Your task to perform on an android device: Show me the alarms in the clock app Image 0: 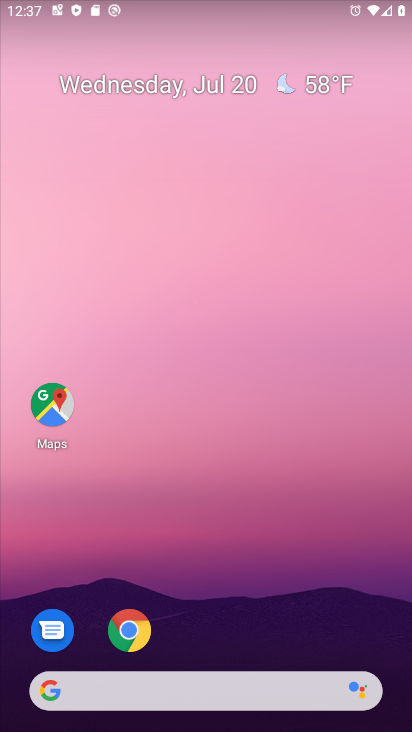
Step 0: press home button
Your task to perform on an android device: Show me the alarms in the clock app Image 1: 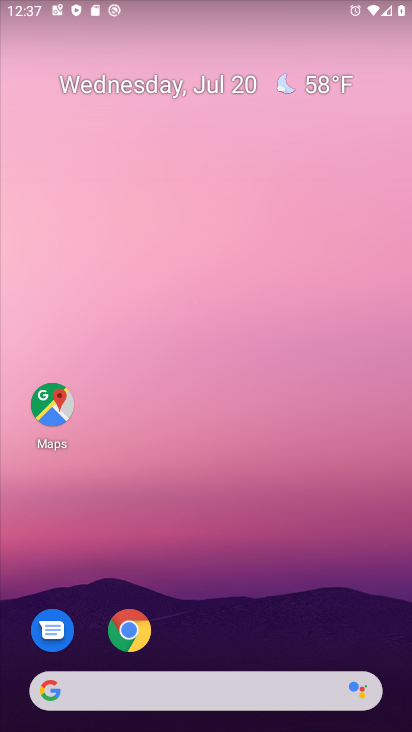
Step 1: drag from (173, 693) to (350, 20)
Your task to perform on an android device: Show me the alarms in the clock app Image 2: 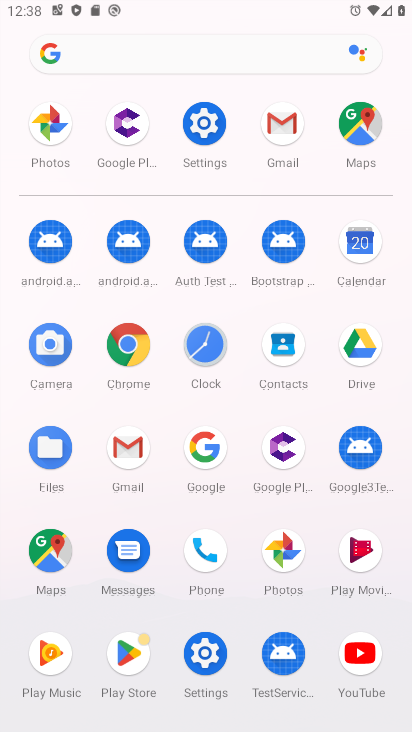
Step 2: click (206, 352)
Your task to perform on an android device: Show me the alarms in the clock app Image 3: 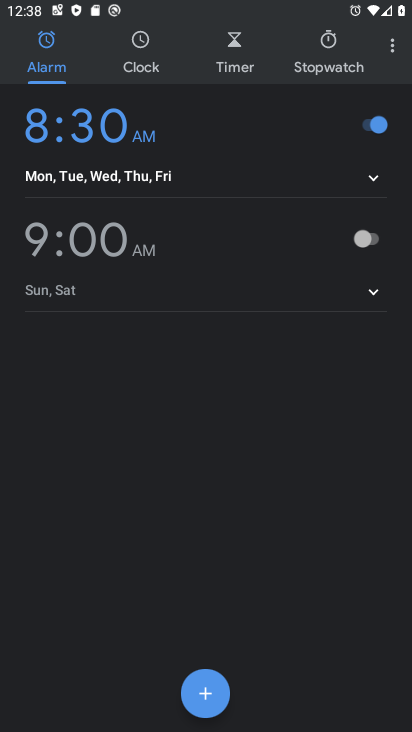
Step 3: task complete